Your task to perform on an android device: Show me the alarms in the clock app Image 0: 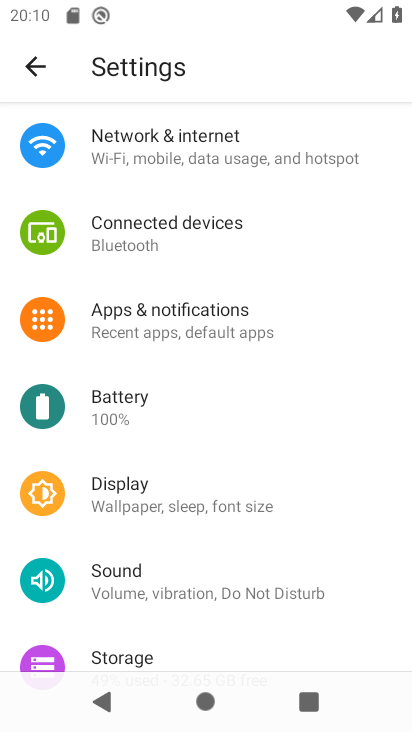
Step 0: press home button
Your task to perform on an android device: Show me the alarms in the clock app Image 1: 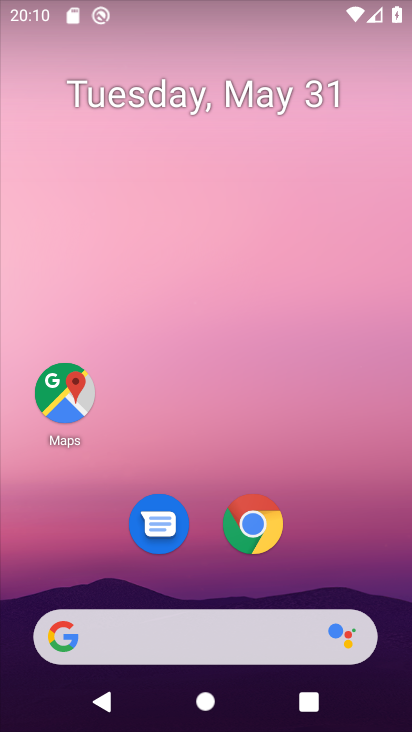
Step 1: drag from (312, 541) to (325, 0)
Your task to perform on an android device: Show me the alarms in the clock app Image 2: 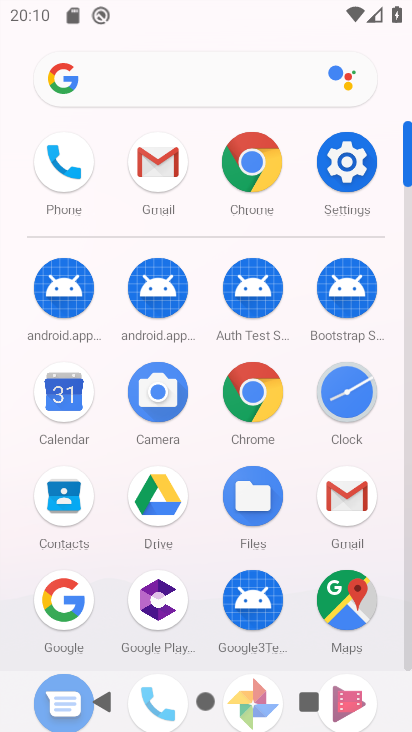
Step 2: click (351, 394)
Your task to perform on an android device: Show me the alarms in the clock app Image 3: 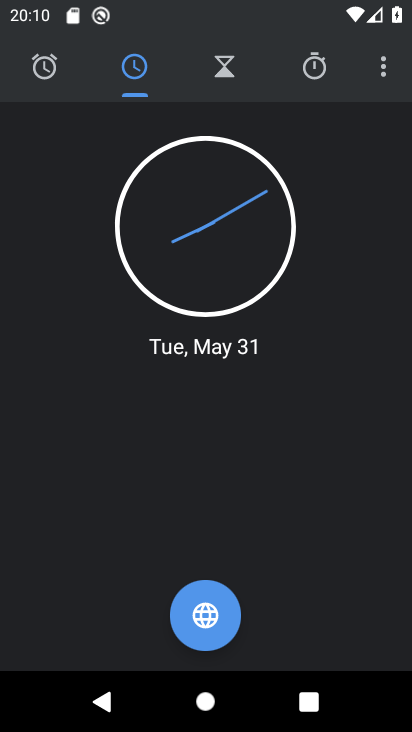
Step 3: click (53, 69)
Your task to perform on an android device: Show me the alarms in the clock app Image 4: 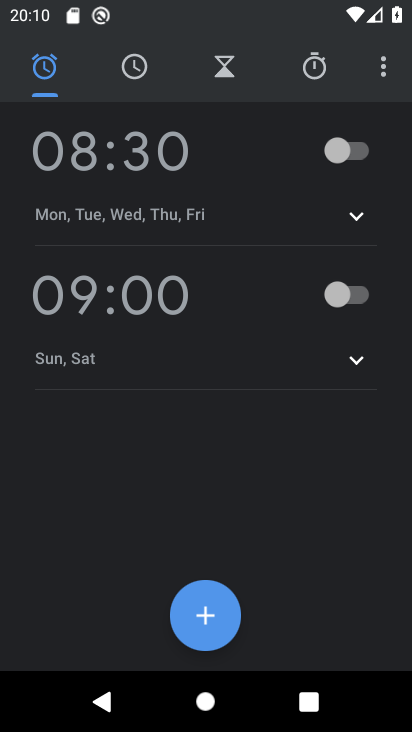
Step 4: task complete